Your task to perform on an android device: toggle show notifications on the lock screen Image 0: 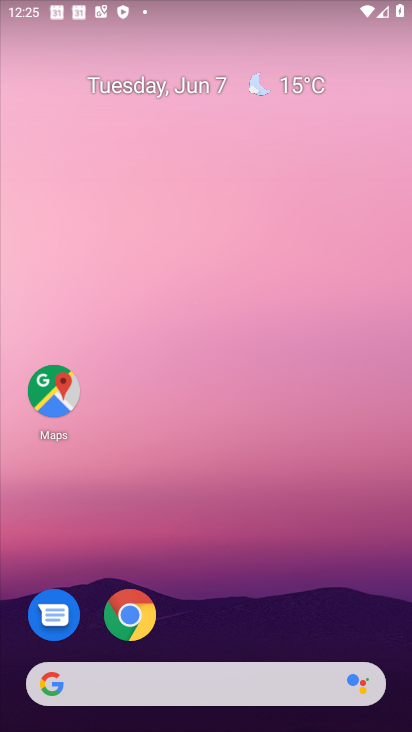
Step 0: drag from (256, 594) to (181, 148)
Your task to perform on an android device: toggle show notifications on the lock screen Image 1: 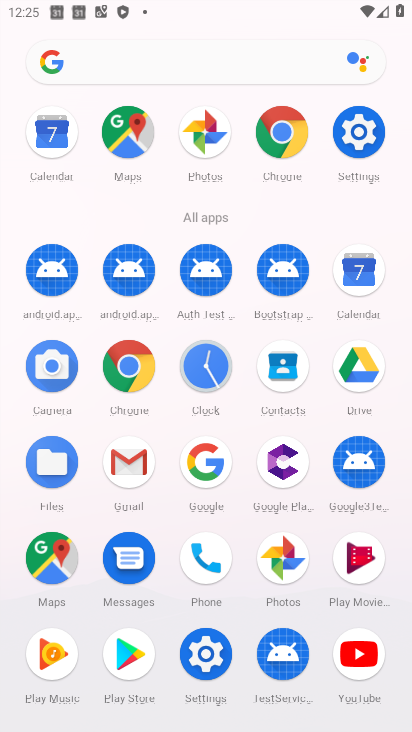
Step 1: click (363, 134)
Your task to perform on an android device: toggle show notifications on the lock screen Image 2: 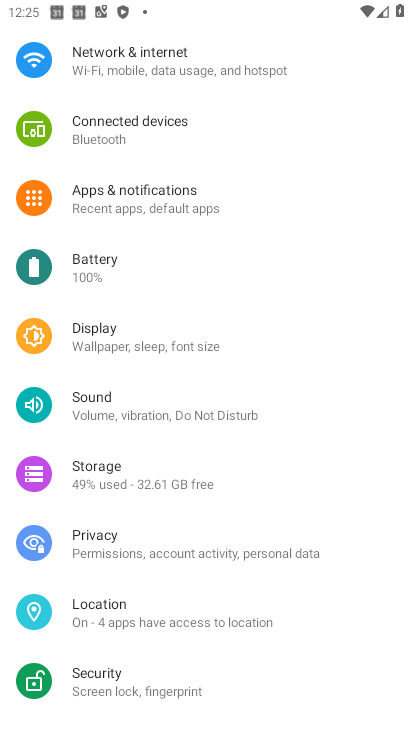
Step 2: click (131, 205)
Your task to perform on an android device: toggle show notifications on the lock screen Image 3: 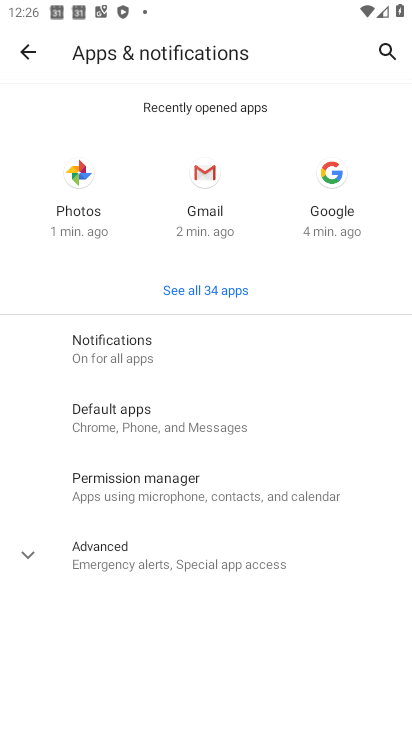
Step 3: click (89, 360)
Your task to perform on an android device: toggle show notifications on the lock screen Image 4: 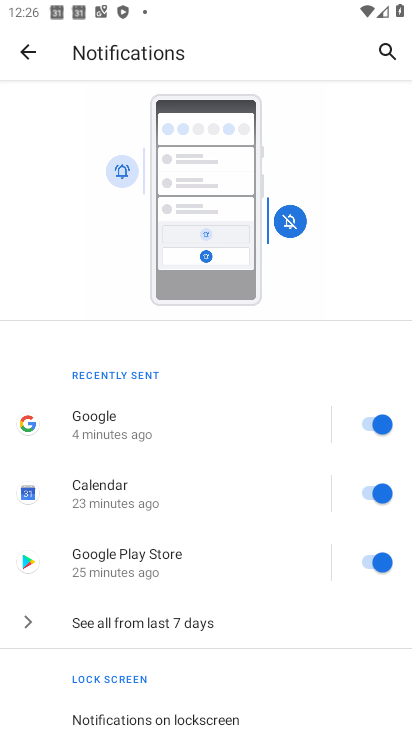
Step 4: click (187, 718)
Your task to perform on an android device: toggle show notifications on the lock screen Image 5: 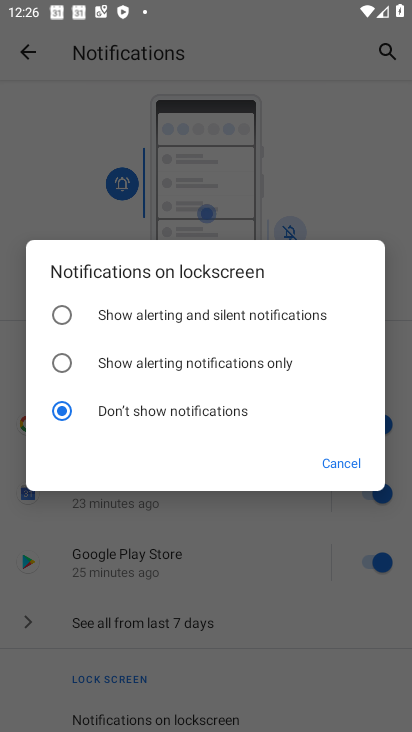
Step 5: click (65, 328)
Your task to perform on an android device: toggle show notifications on the lock screen Image 6: 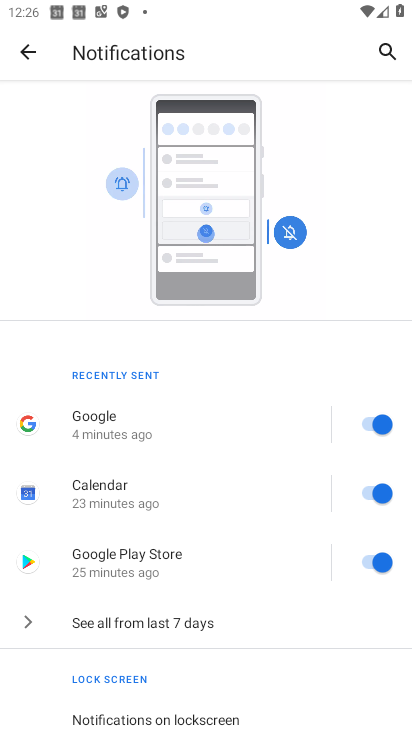
Step 6: task complete